Your task to perform on an android device: change alarm snooze length Image 0: 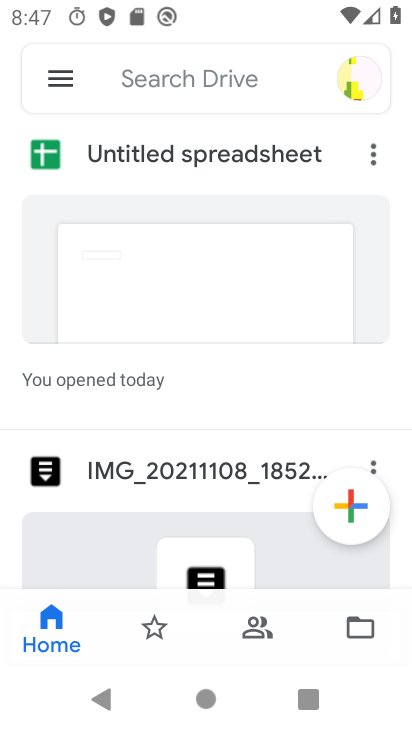
Step 0: press home button
Your task to perform on an android device: change alarm snooze length Image 1: 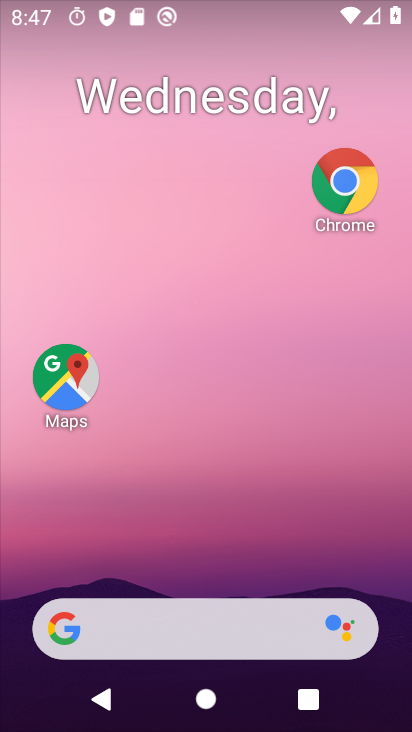
Step 1: drag from (221, 675) to (210, 175)
Your task to perform on an android device: change alarm snooze length Image 2: 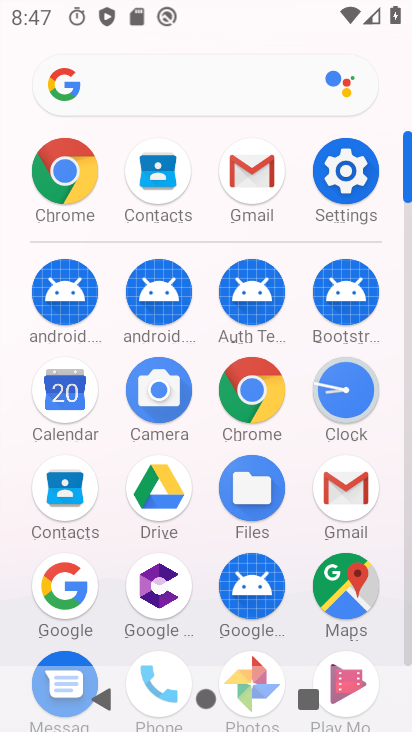
Step 2: click (320, 384)
Your task to perform on an android device: change alarm snooze length Image 3: 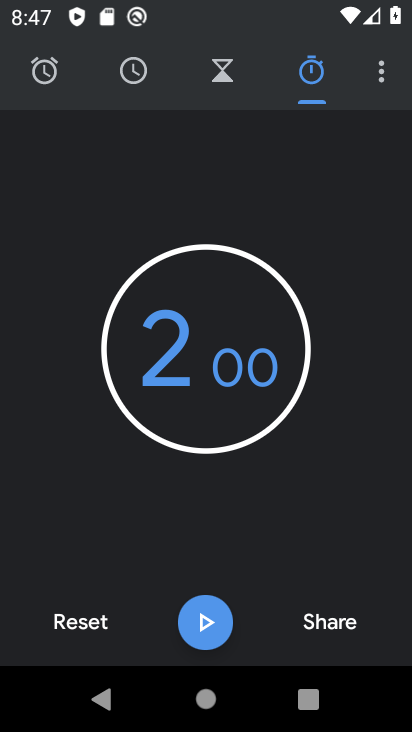
Step 3: click (376, 65)
Your task to perform on an android device: change alarm snooze length Image 4: 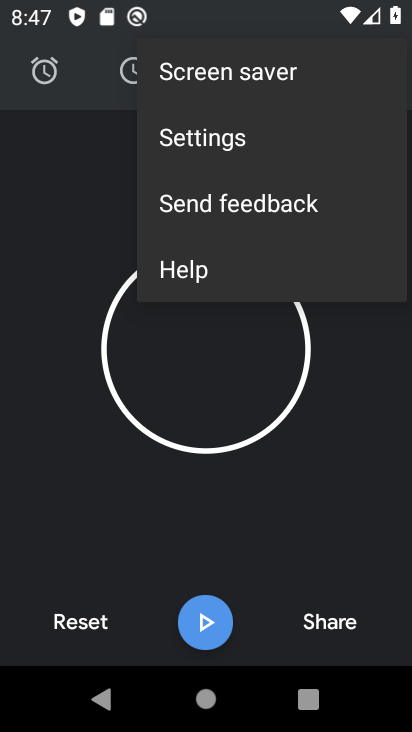
Step 4: click (236, 150)
Your task to perform on an android device: change alarm snooze length Image 5: 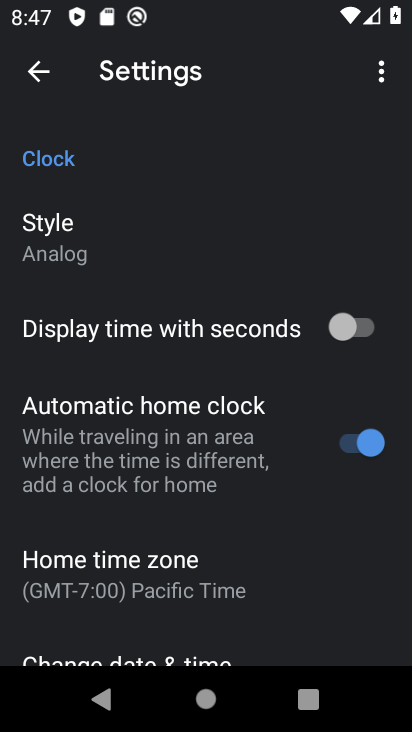
Step 5: drag from (175, 517) to (234, 228)
Your task to perform on an android device: change alarm snooze length Image 6: 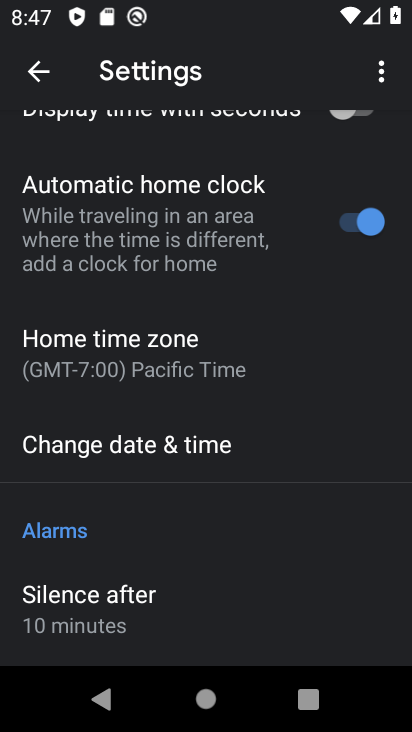
Step 6: drag from (141, 539) to (205, 297)
Your task to perform on an android device: change alarm snooze length Image 7: 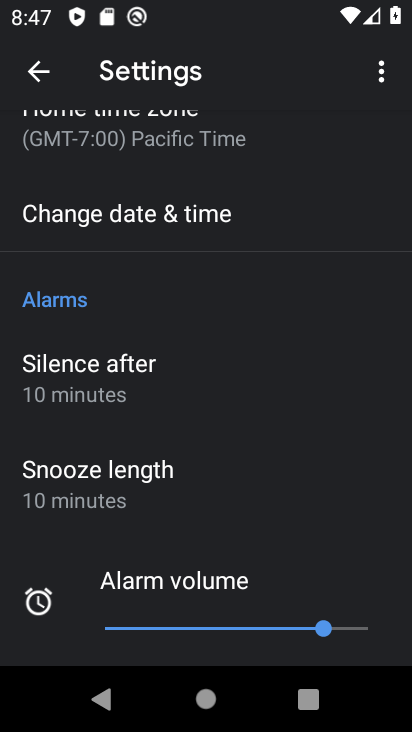
Step 7: click (117, 477)
Your task to perform on an android device: change alarm snooze length Image 8: 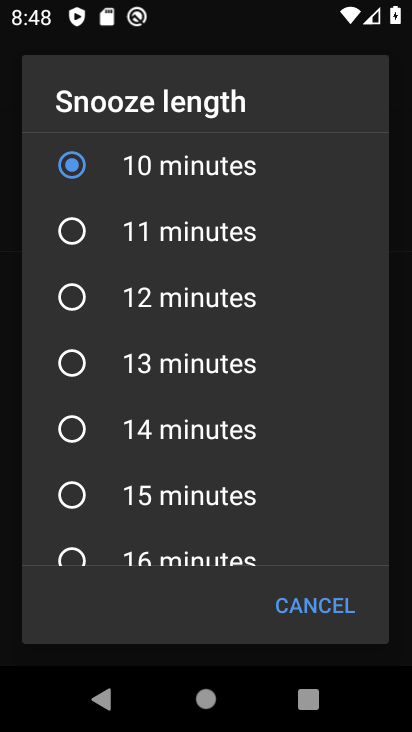
Step 8: click (163, 351)
Your task to perform on an android device: change alarm snooze length Image 9: 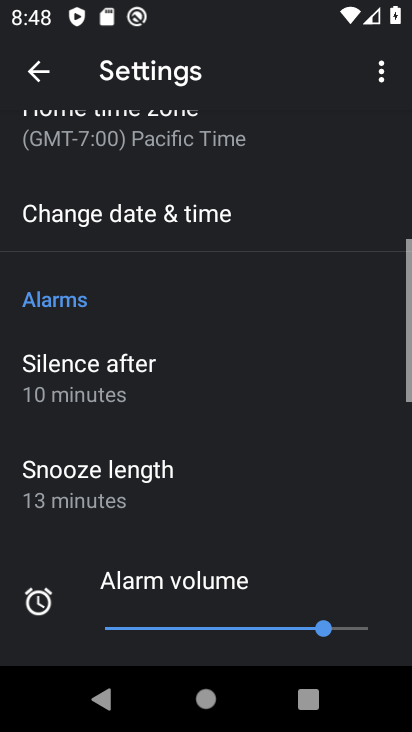
Step 9: task complete